Your task to perform on an android device: check storage Image 0: 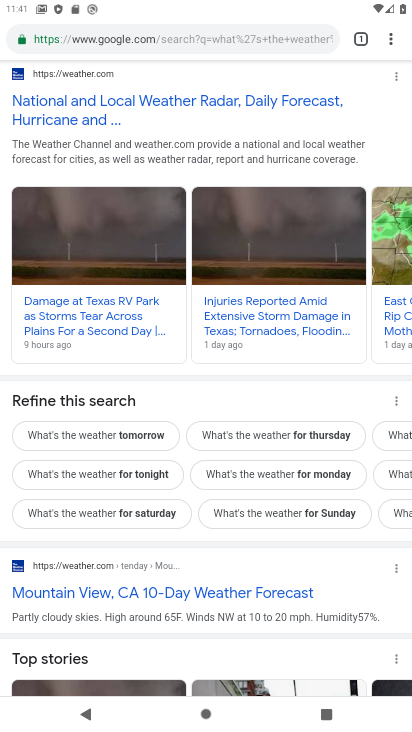
Step 0: press home button
Your task to perform on an android device: check storage Image 1: 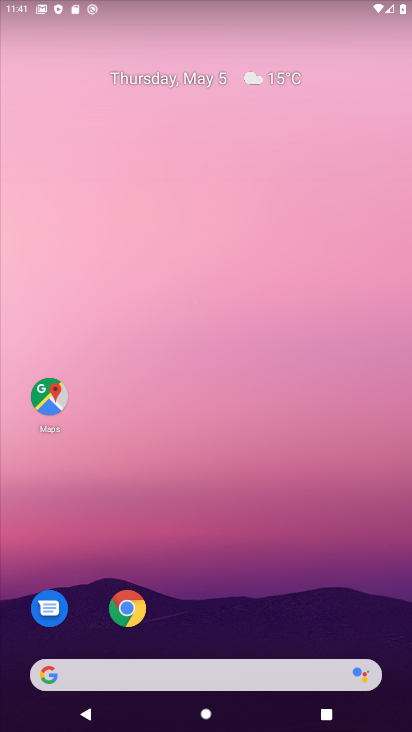
Step 1: drag from (216, 562) to (221, 214)
Your task to perform on an android device: check storage Image 2: 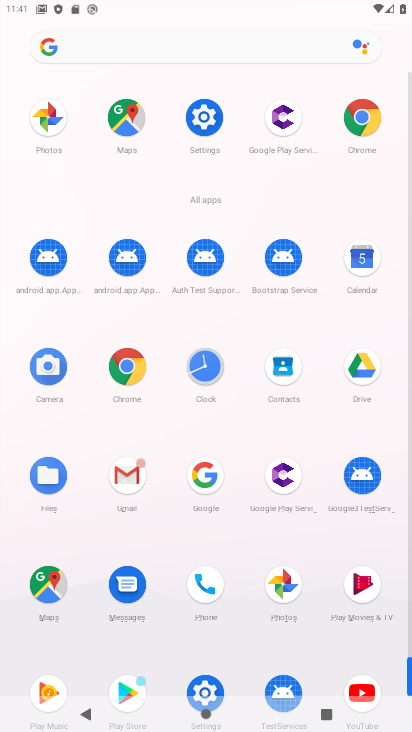
Step 2: click (195, 112)
Your task to perform on an android device: check storage Image 3: 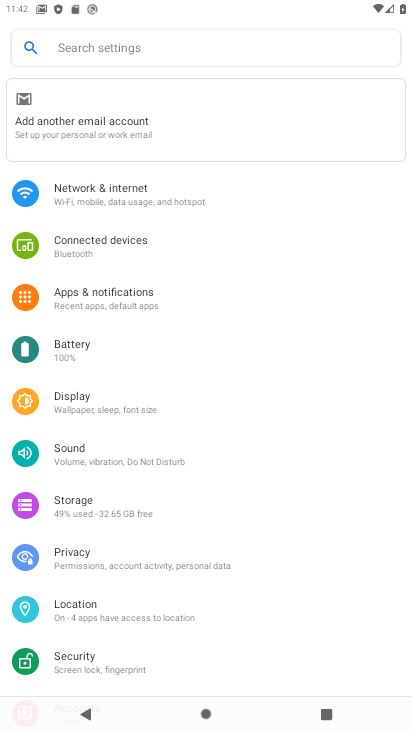
Step 3: click (107, 513)
Your task to perform on an android device: check storage Image 4: 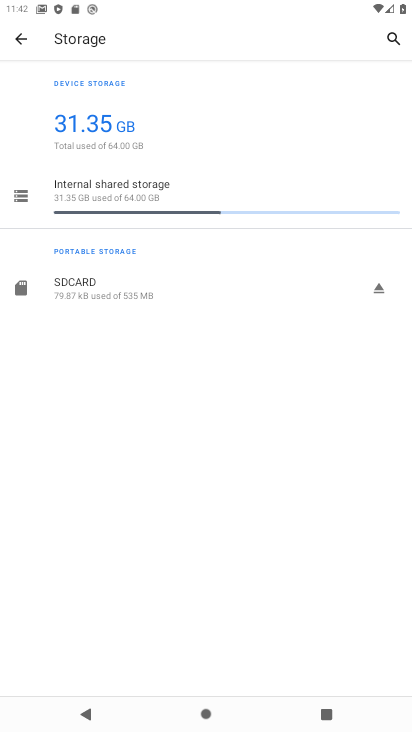
Step 4: task complete